Your task to perform on an android device: delete location history Image 0: 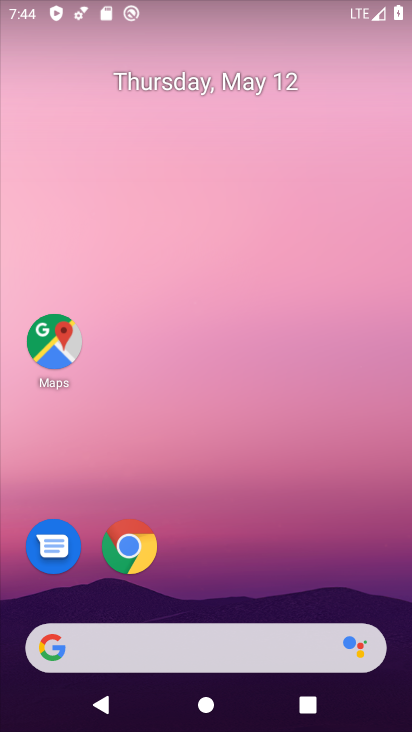
Step 0: click (53, 335)
Your task to perform on an android device: delete location history Image 1: 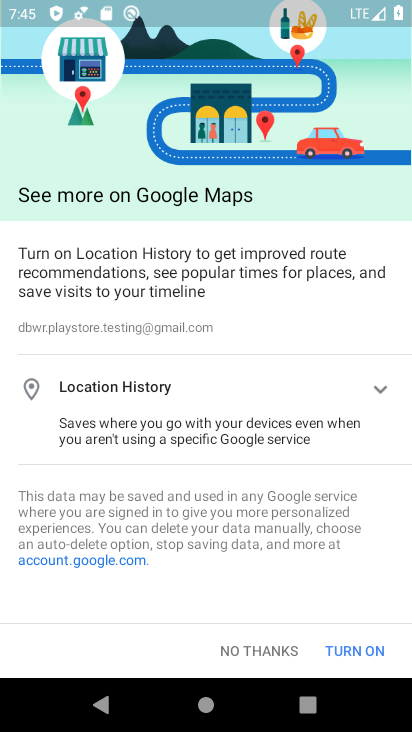
Step 1: click (242, 647)
Your task to perform on an android device: delete location history Image 2: 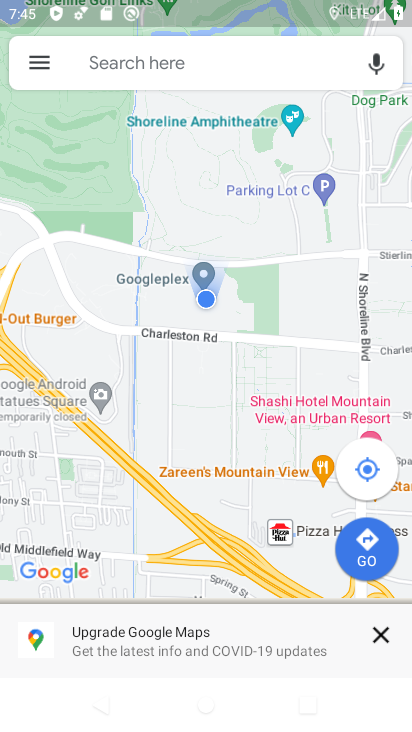
Step 2: click (34, 55)
Your task to perform on an android device: delete location history Image 3: 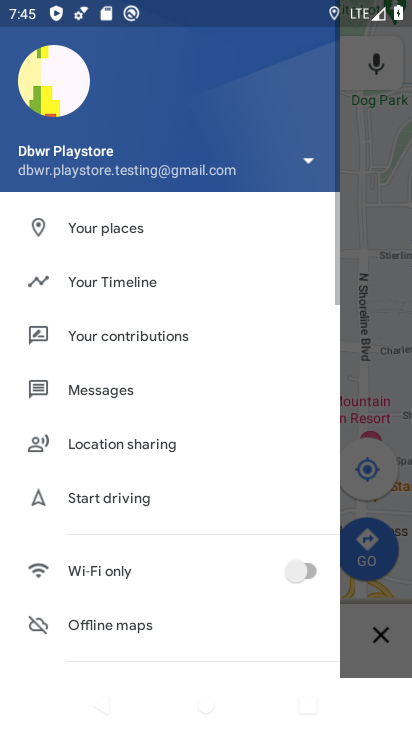
Step 3: click (128, 280)
Your task to perform on an android device: delete location history Image 4: 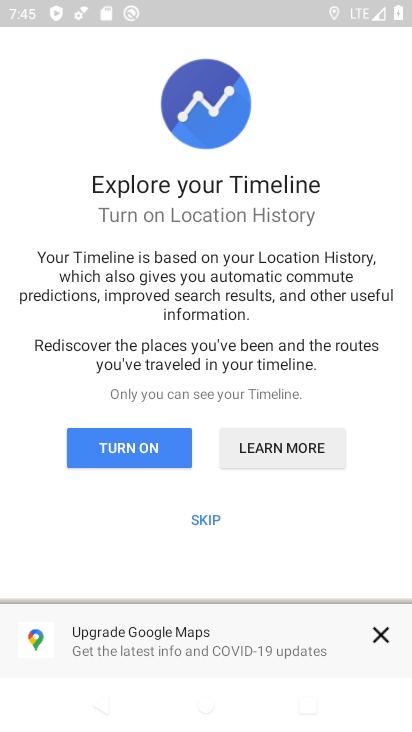
Step 4: click (202, 521)
Your task to perform on an android device: delete location history Image 5: 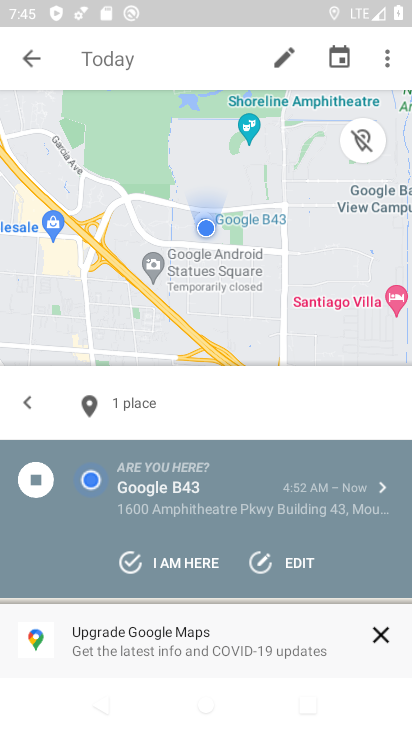
Step 5: click (389, 53)
Your task to perform on an android device: delete location history Image 6: 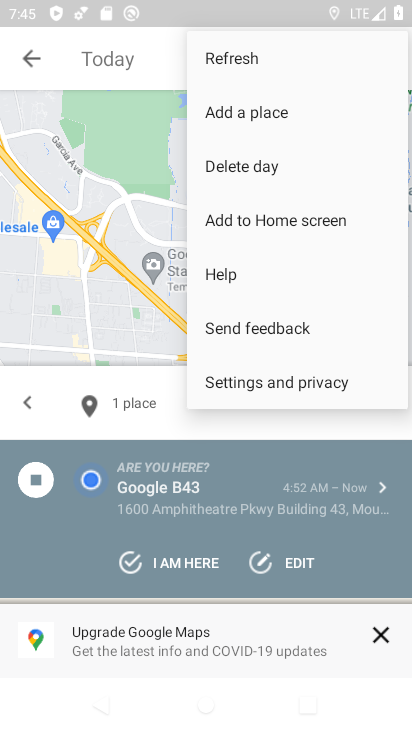
Step 6: click (252, 373)
Your task to perform on an android device: delete location history Image 7: 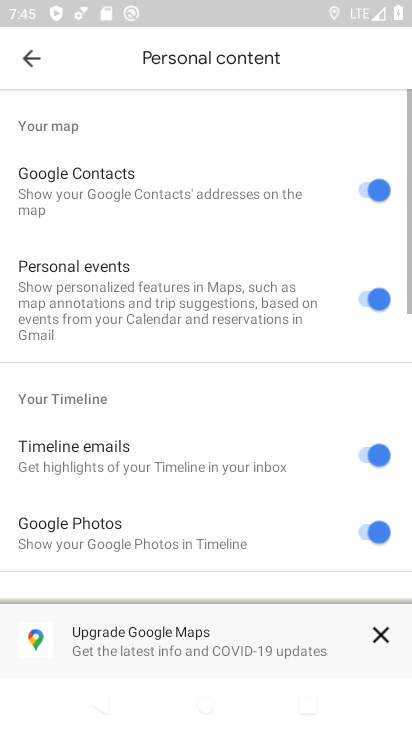
Step 7: drag from (168, 525) to (254, 4)
Your task to perform on an android device: delete location history Image 8: 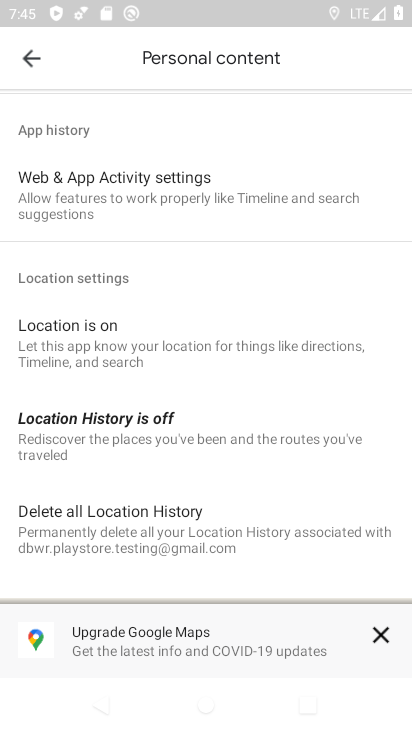
Step 8: click (88, 510)
Your task to perform on an android device: delete location history Image 9: 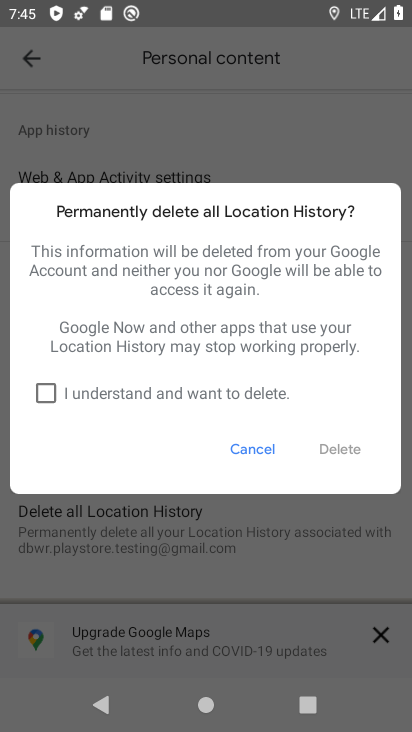
Step 9: click (40, 389)
Your task to perform on an android device: delete location history Image 10: 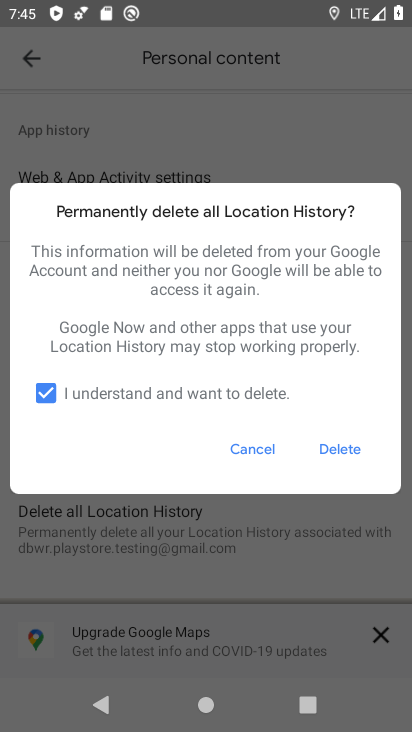
Step 10: click (368, 437)
Your task to perform on an android device: delete location history Image 11: 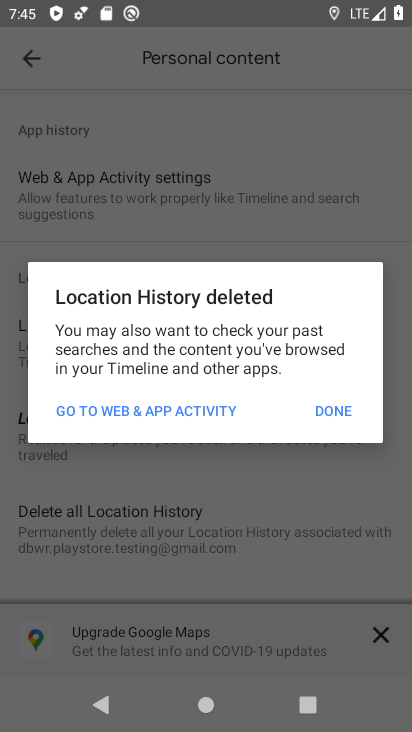
Step 11: click (323, 404)
Your task to perform on an android device: delete location history Image 12: 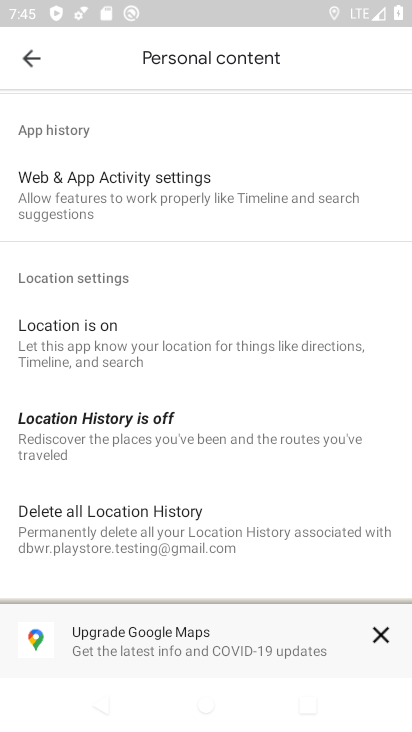
Step 12: task complete